Your task to perform on an android device: Open the stopwatch Image 0: 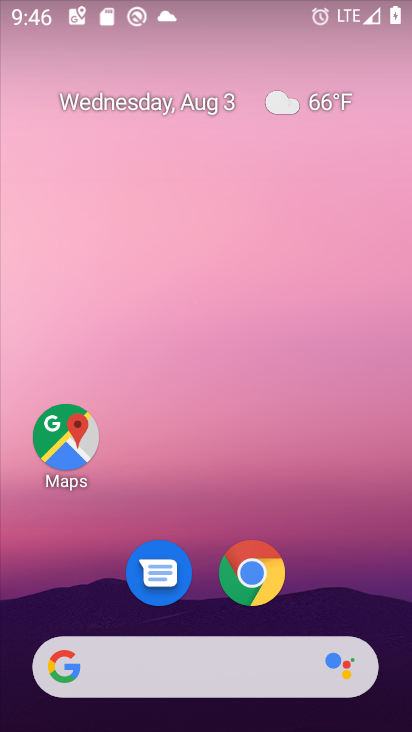
Step 0: drag from (323, 612) to (312, 80)
Your task to perform on an android device: Open the stopwatch Image 1: 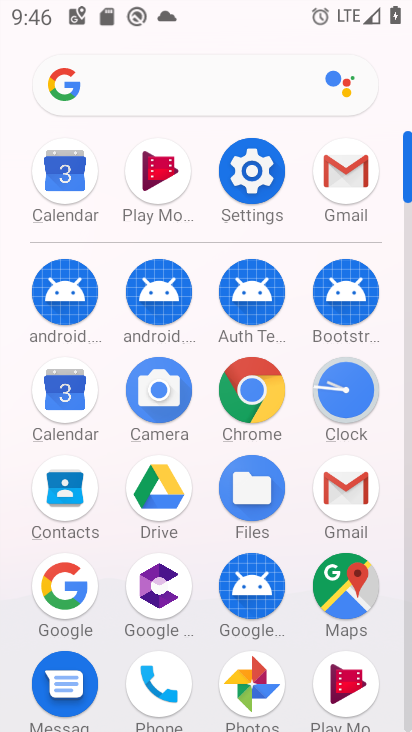
Step 1: click (342, 409)
Your task to perform on an android device: Open the stopwatch Image 2: 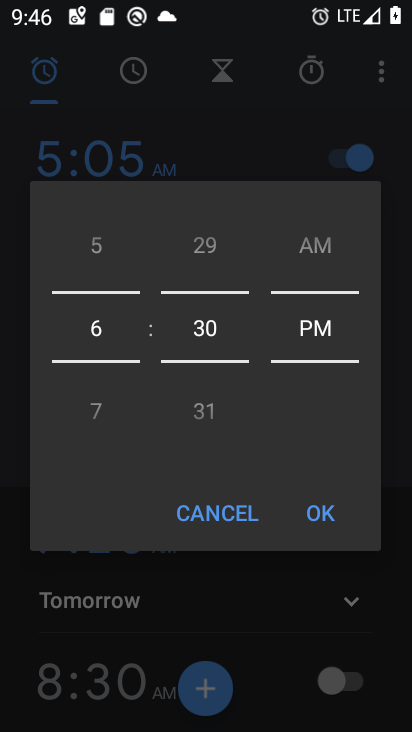
Step 2: click (210, 516)
Your task to perform on an android device: Open the stopwatch Image 3: 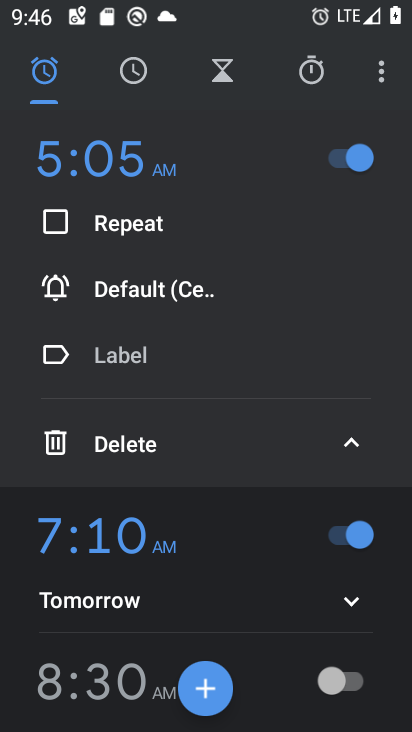
Step 3: click (315, 70)
Your task to perform on an android device: Open the stopwatch Image 4: 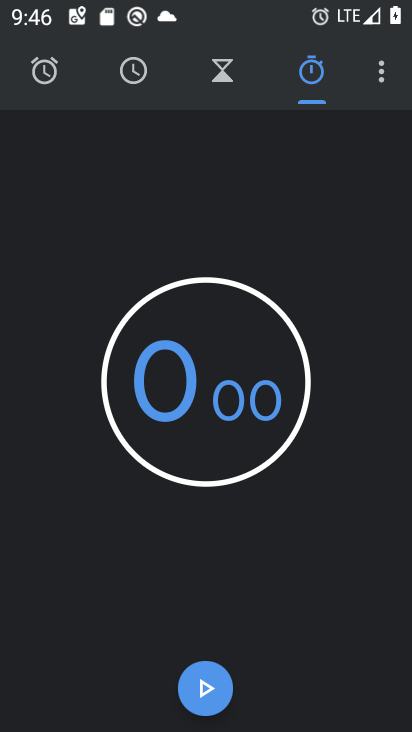
Step 4: task complete